Your task to perform on an android device: View the shopping cart on ebay.com. Image 0: 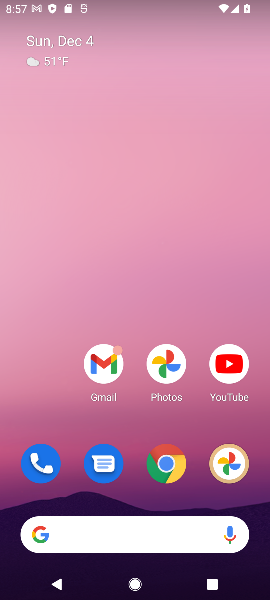
Step 0: click (128, 544)
Your task to perform on an android device: View the shopping cart on ebay.com. Image 1: 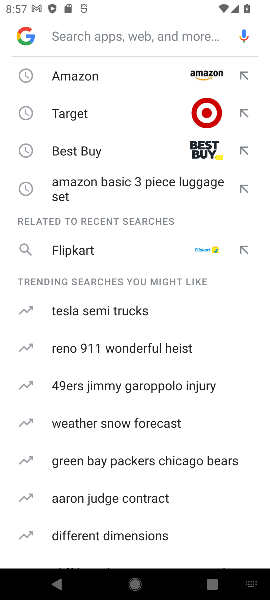
Step 1: type "ebay.com"
Your task to perform on an android device: View the shopping cart on ebay.com. Image 2: 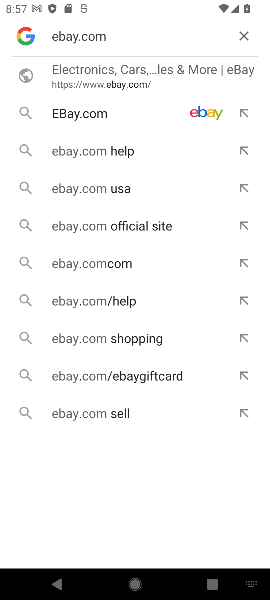
Step 2: click (131, 83)
Your task to perform on an android device: View the shopping cart on ebay.com. Image 3: 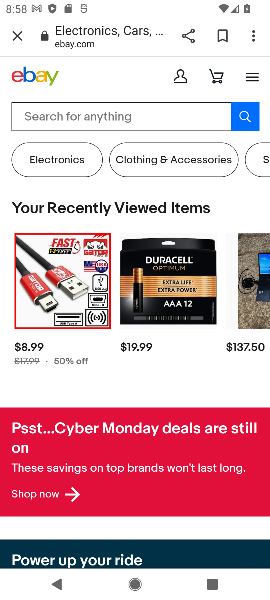
Step 3: click (50, 125)
Your task to perform on an android device: View the shopping cart on ebay.com. Image 4: 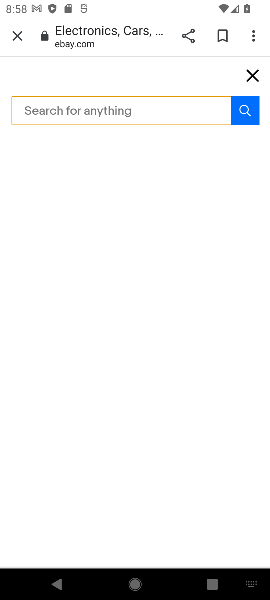
Step 4: task complete